Your task to perform on an android device: Is it going to rain today? Image 0: 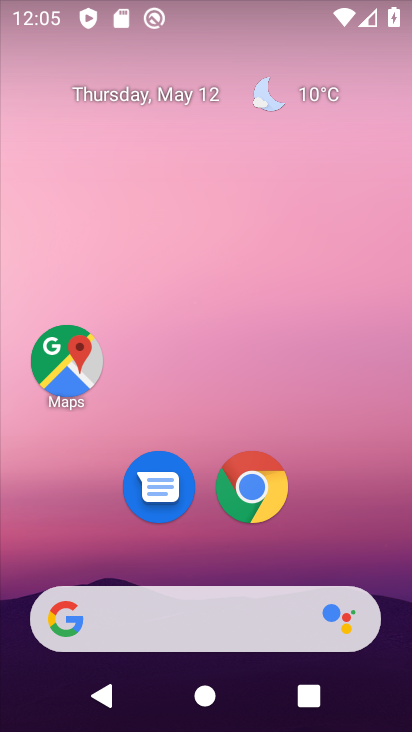
Step 0: click (295, 90)
Your task to perform on an android device: Is it going to rain today? Image 1: 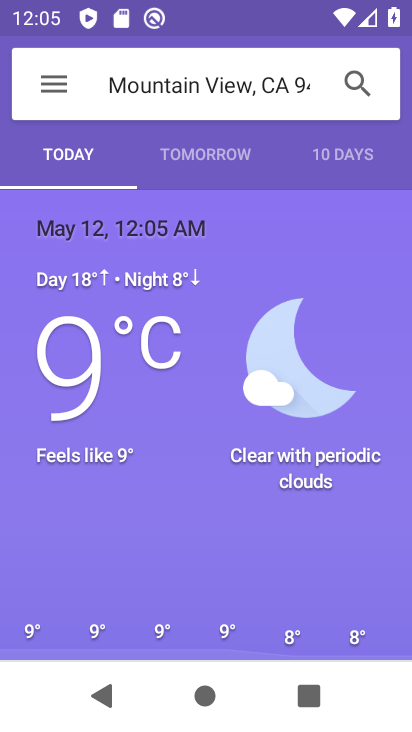
Step 1: task complete